Your task to perform on an android device: toggle sleep mode Image 0: 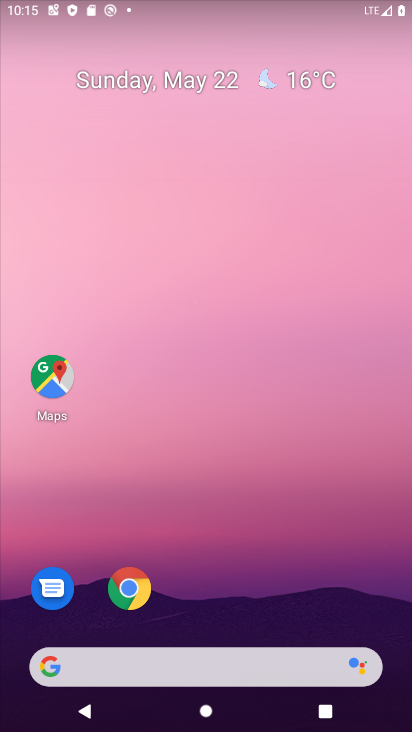
Step 0: drag from (229, 609) to (206, 157)
Your task to perform on an android device: toggle sleep mode Image 1: 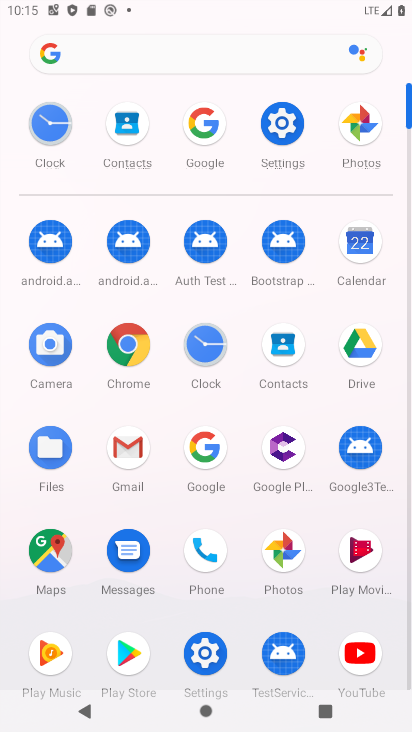
Step 1: click (271, 130)
Your task to perform on an android device: toggle sleep mode Image 2: 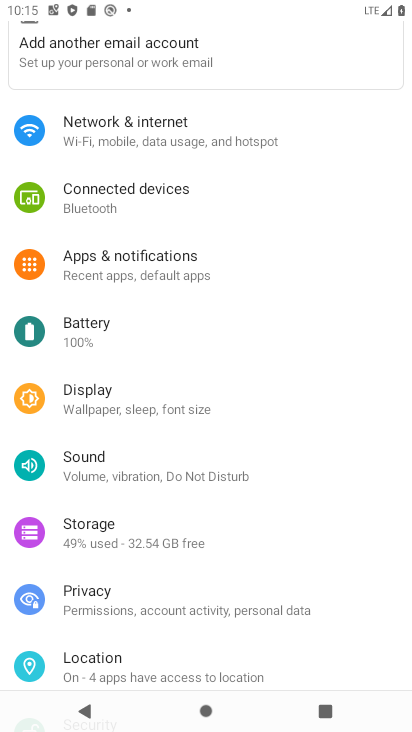
Step 2: click (143, 396)
Your task to perform on an android device: toggle sleep mode Image 3: 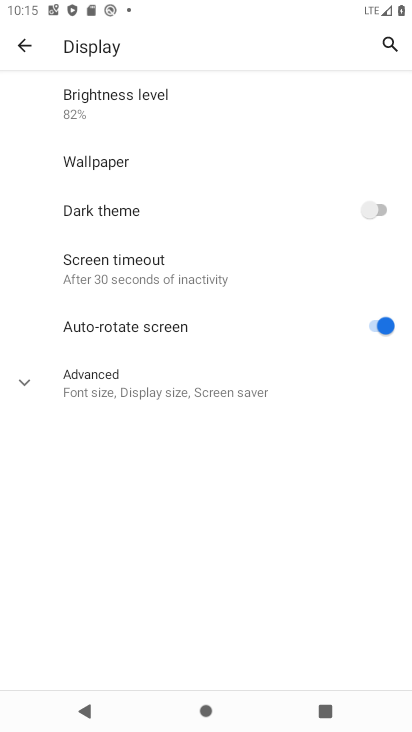
Step 3: click (169, 279)
Your task to perform on an android device: toggle sleep mode Image 4: 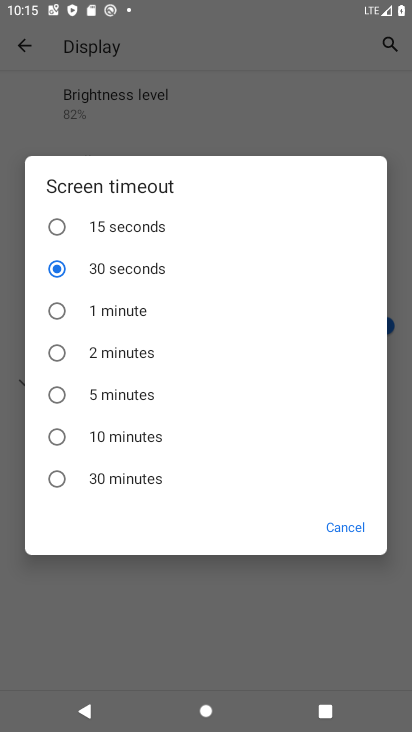
Step 4: click (127, 393)
Your task to perform on an android device: toggle sleep mode Image 5: 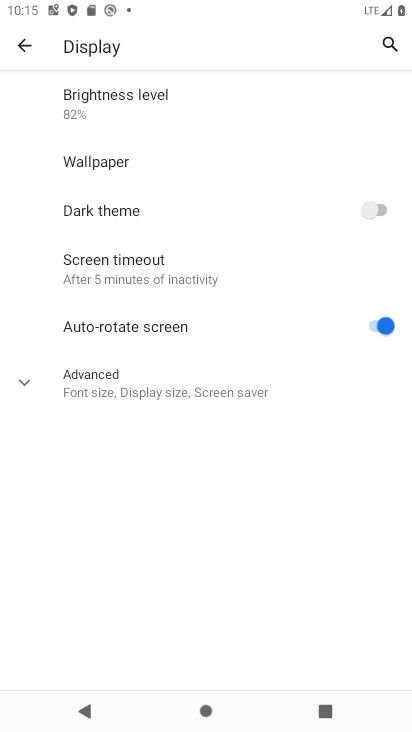
Step 5: task complete